Your task to perform on an android device: uninstall "ZOOM Cloud Meetings" Image 0: 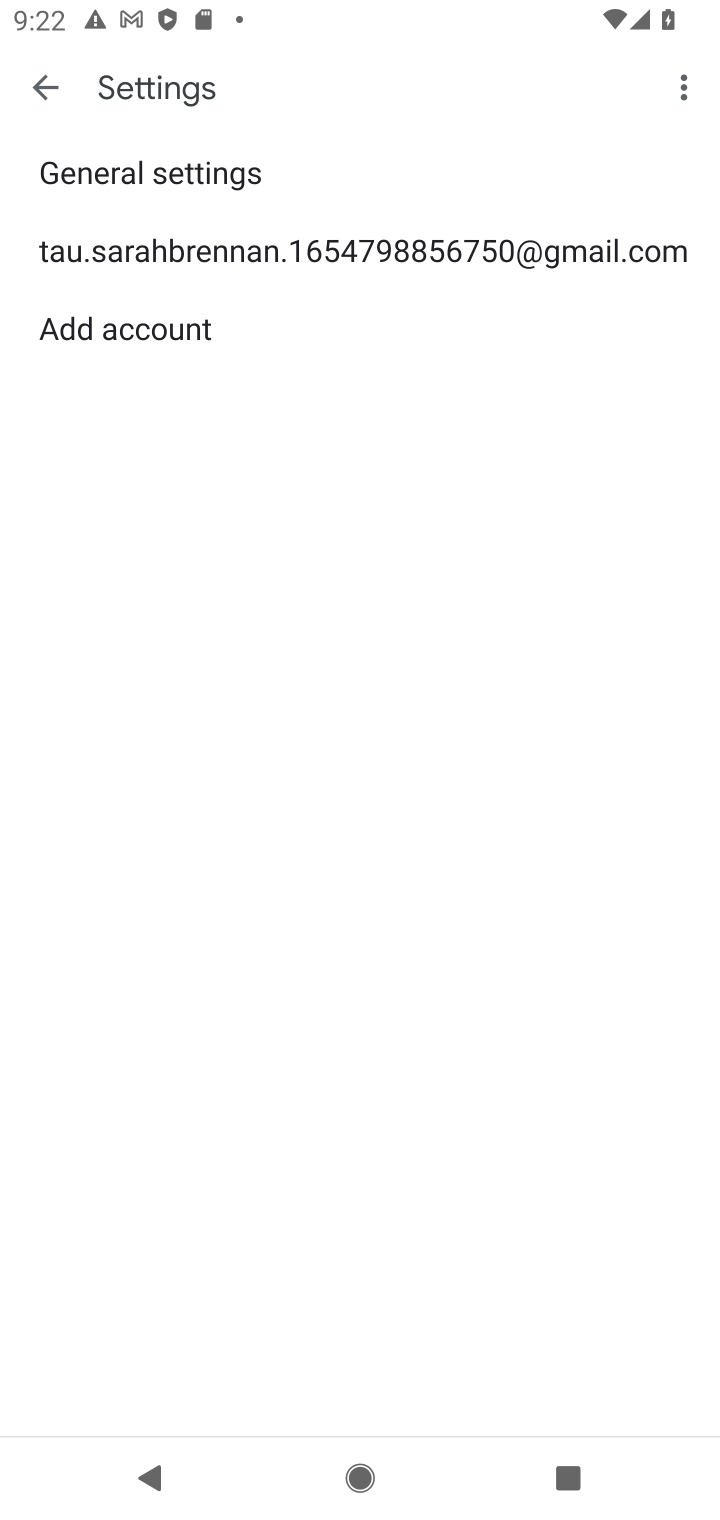
Step 0: press home button
Your task to perform on an android device: uninstall "ZOOM Cloud Meetings" Image 1: 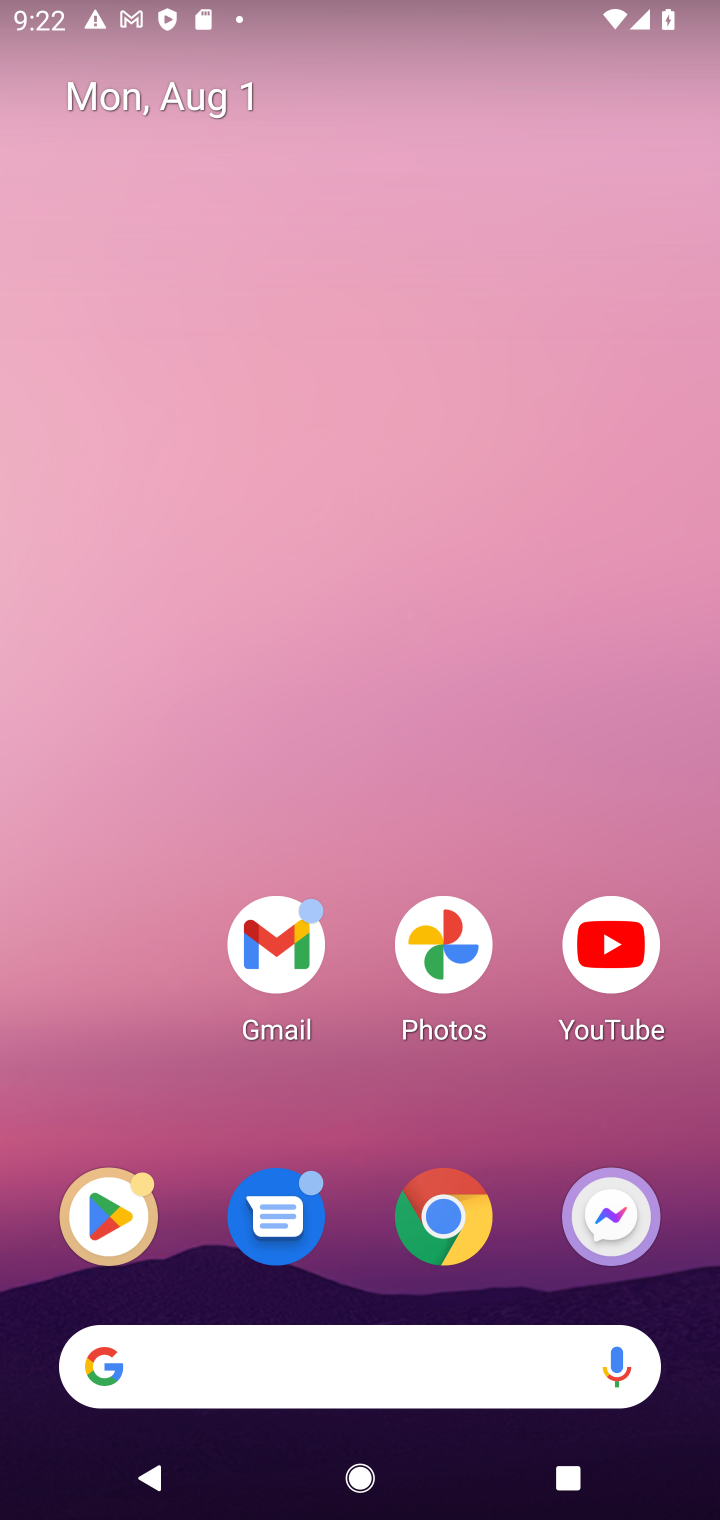
Step 1: click (129, 1227)
Your task to perform on an android device: uninstall "ZOOM Cloud Meetings" Image 2: 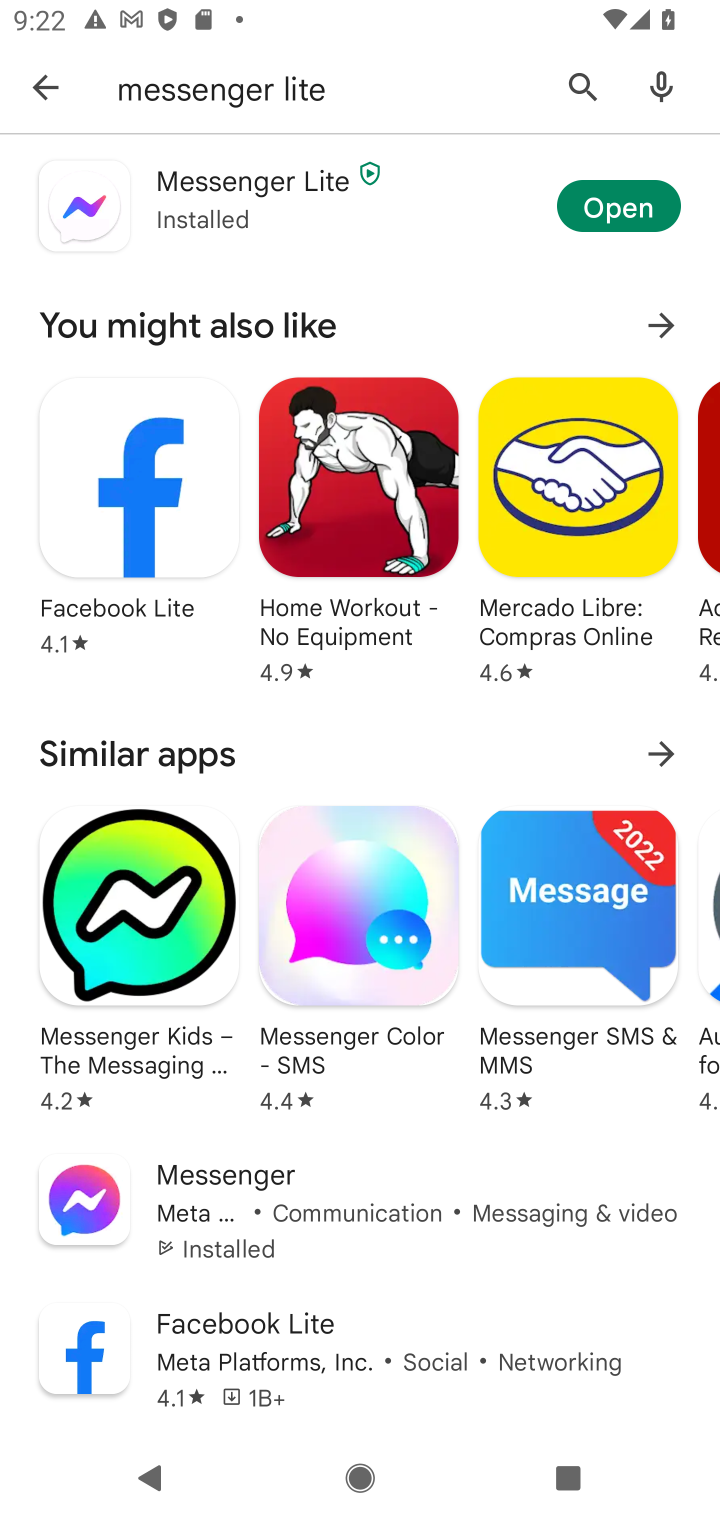
Step 2: click (593, 95)
Your task to perform on an android device: uninstall "ZOOM Cloud Meetings" Image 3: 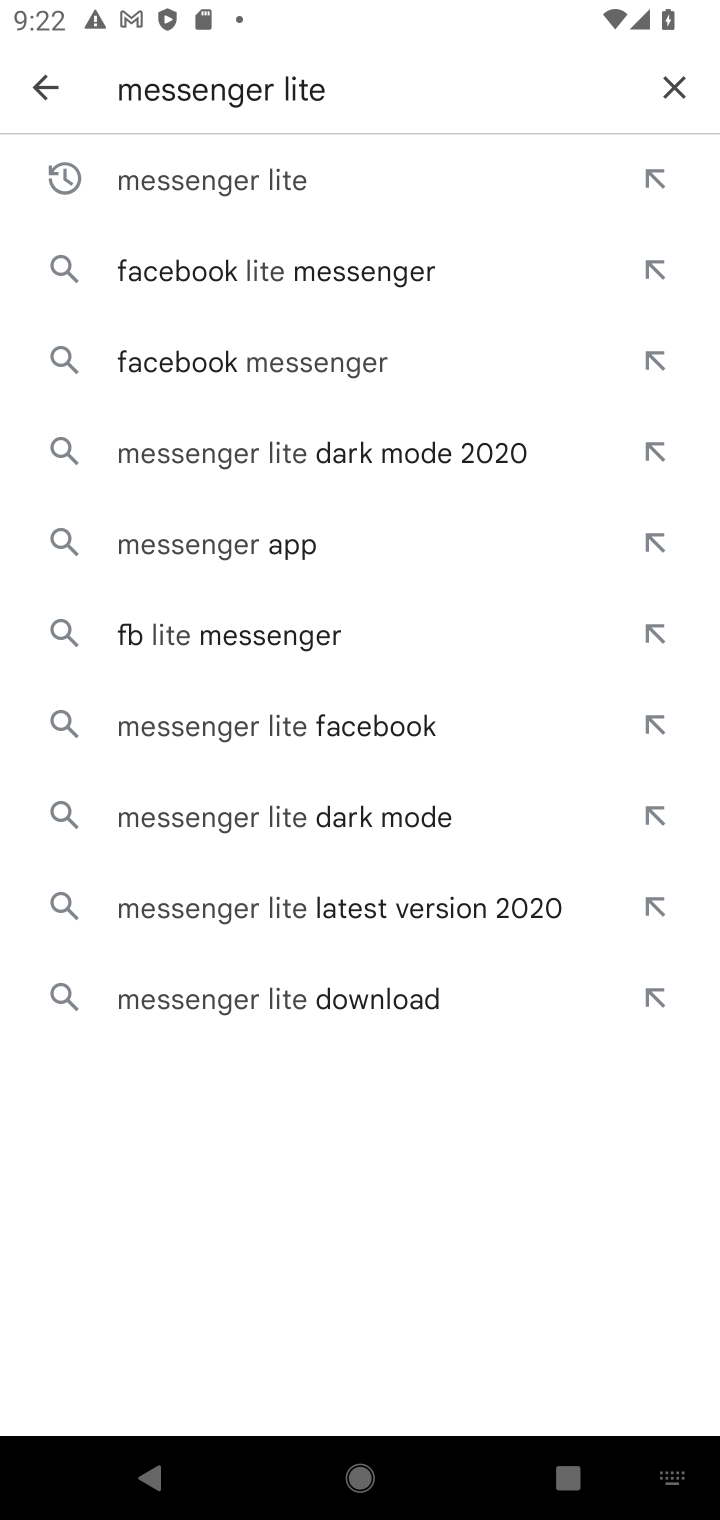
Step 3: click (665, 94)
Your task to perform on an android device: uninstall "ZOOM Cloud Meetings" Image 4: 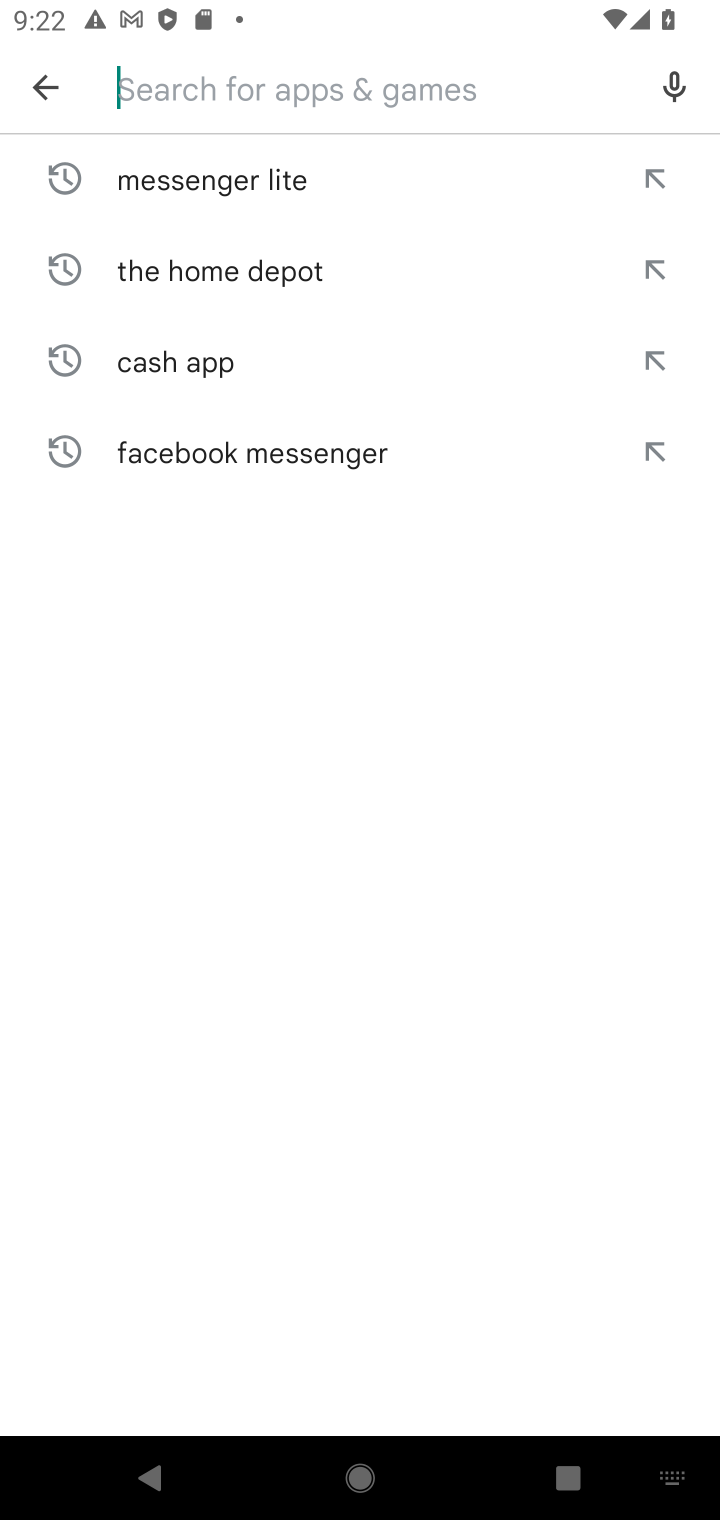
Step 4: type "ZOOM Cloud Meetings"
Your task to perform on an android device: uninstall "ZOOM Cloud Meetings" Image 5: 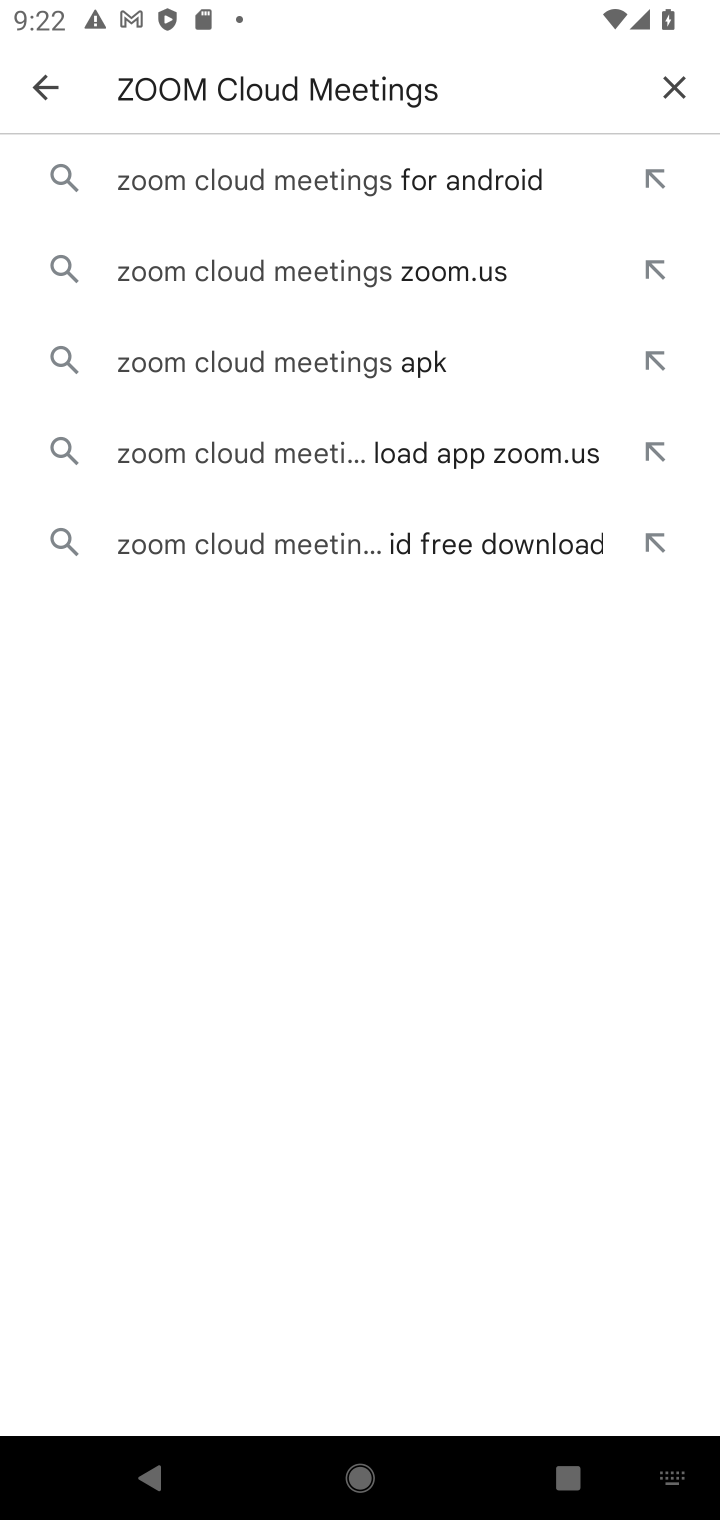
Step 5: click (300, 190)
Your task to perform on an android device: uninstall "ZOOM Cloud Meetings" Image 6: 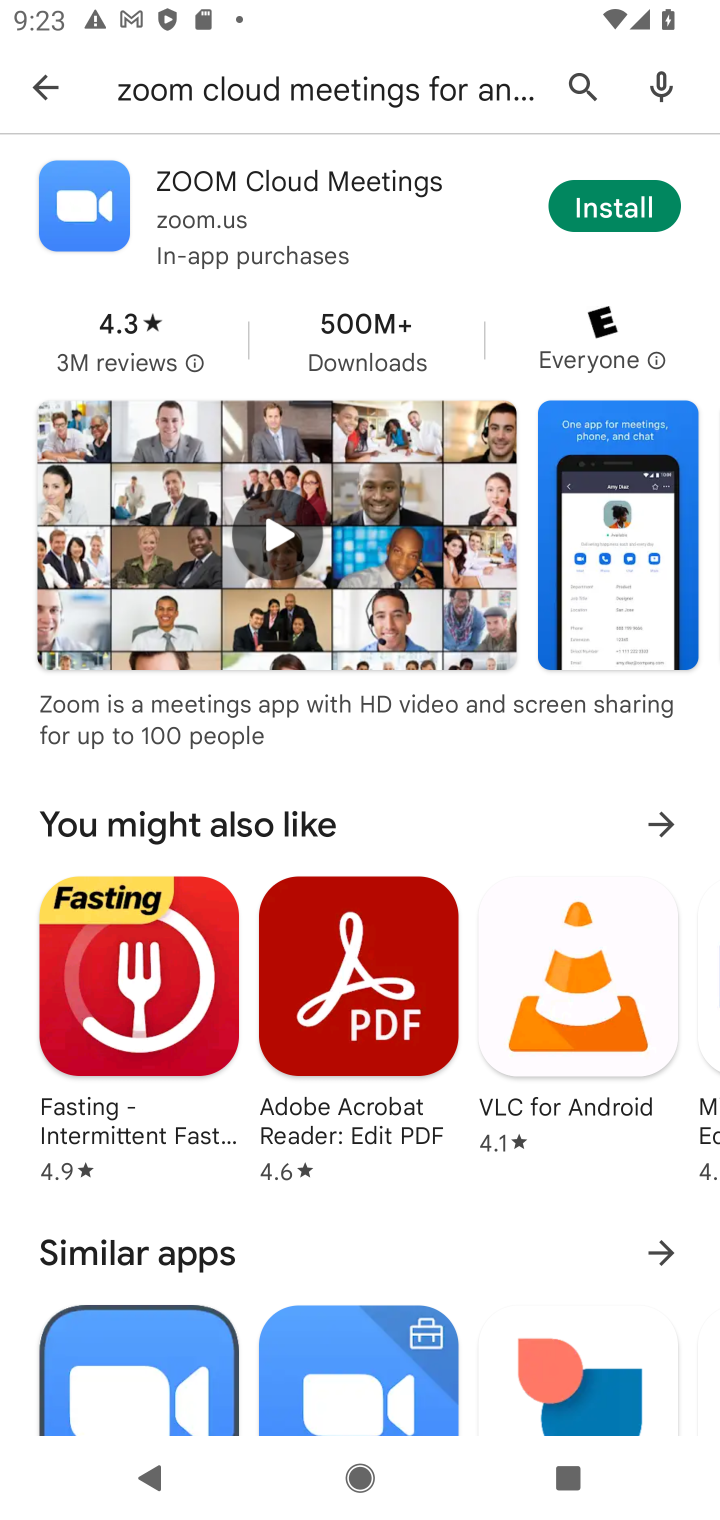
Step 6: task complete